Your task to perform on an android device: Search for Italian restaurants on Maps Image 0: 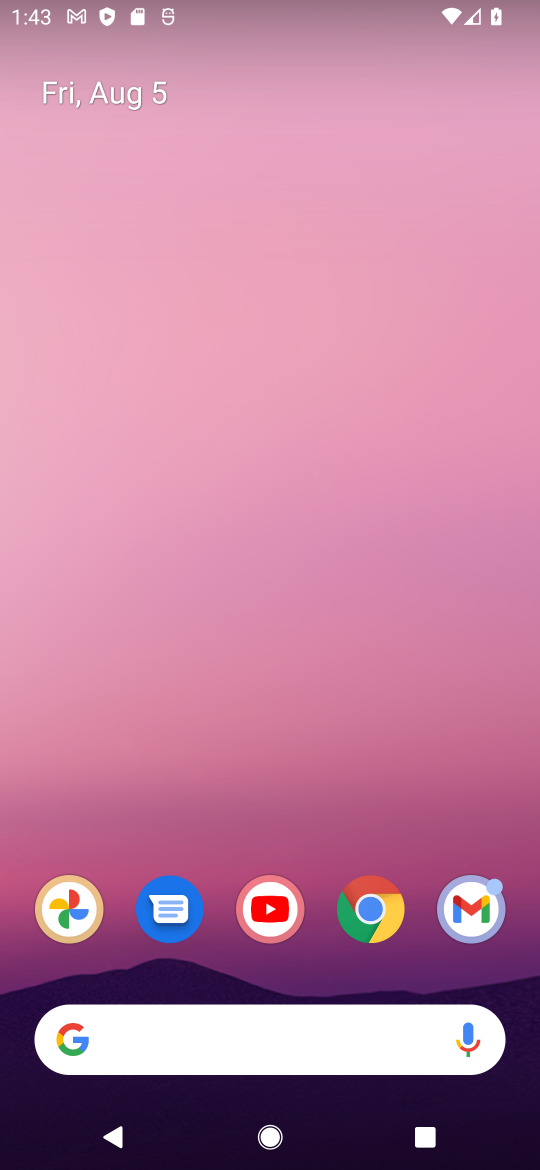
Step 0: drag from (313, 990) to (312, 256)
Your task to perform on an android device: Search for Italian restaurants on Maps Image 1: 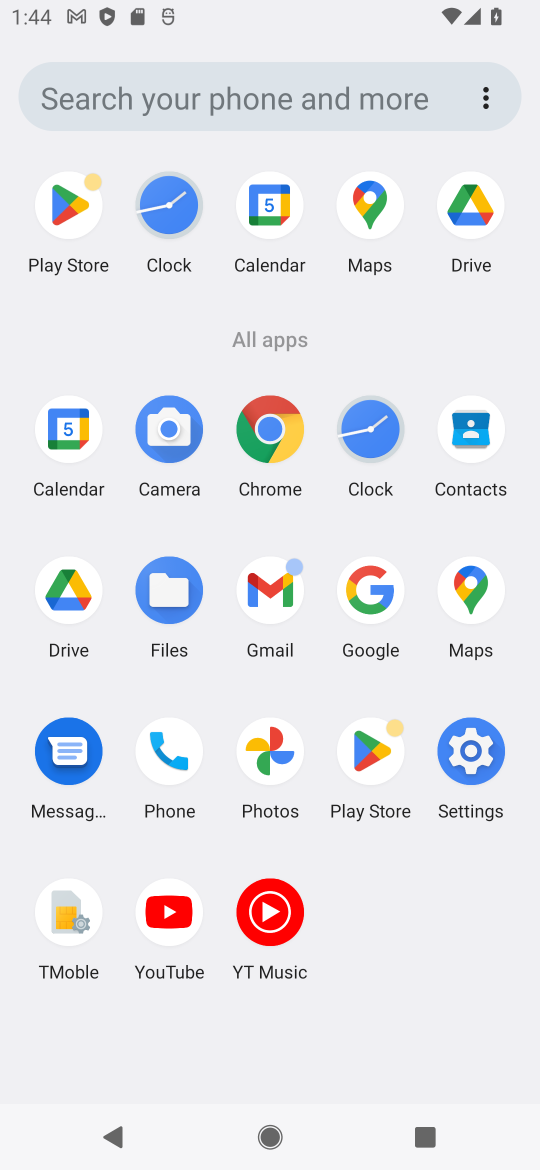
Step 1: click (84, 221)
Your task to perform on an android device: Search for Italian restaurants on Maps Image 2: 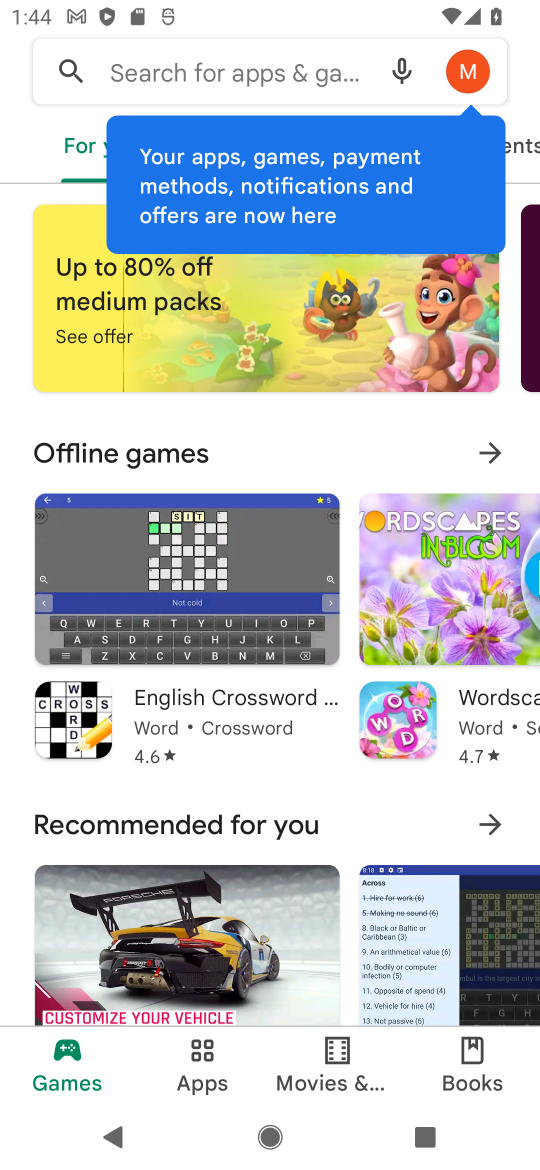
Step 2: press home button
Your task to perform on an android device: Search for Italian restaurants on Maps Image 3: 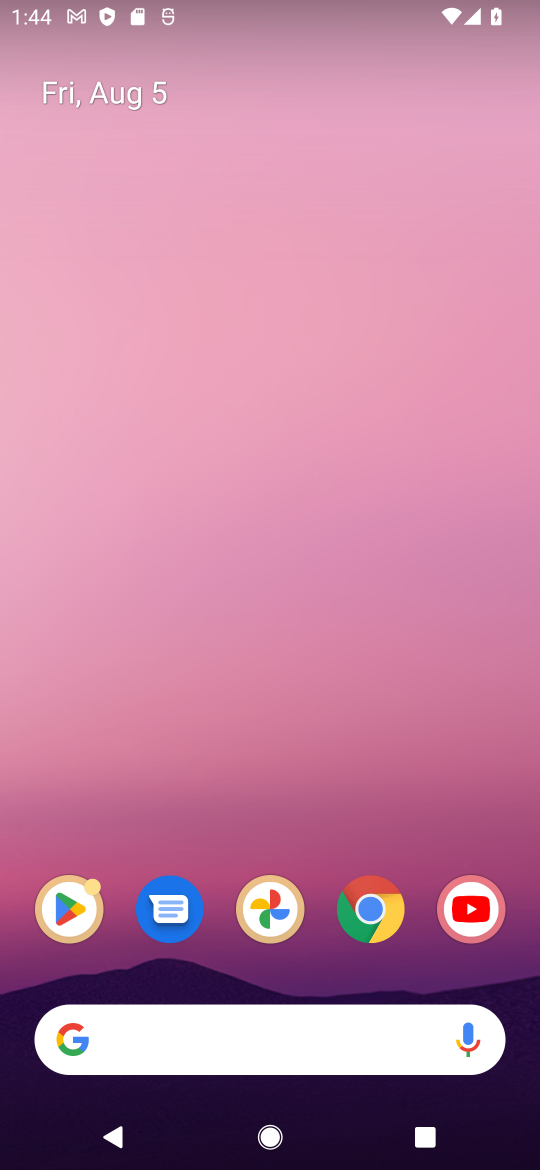
Step 3: drag from (303, 985) to (223, 137)
Your task to perform on an android device: Search for Italian restaurants on Maps Image 4: 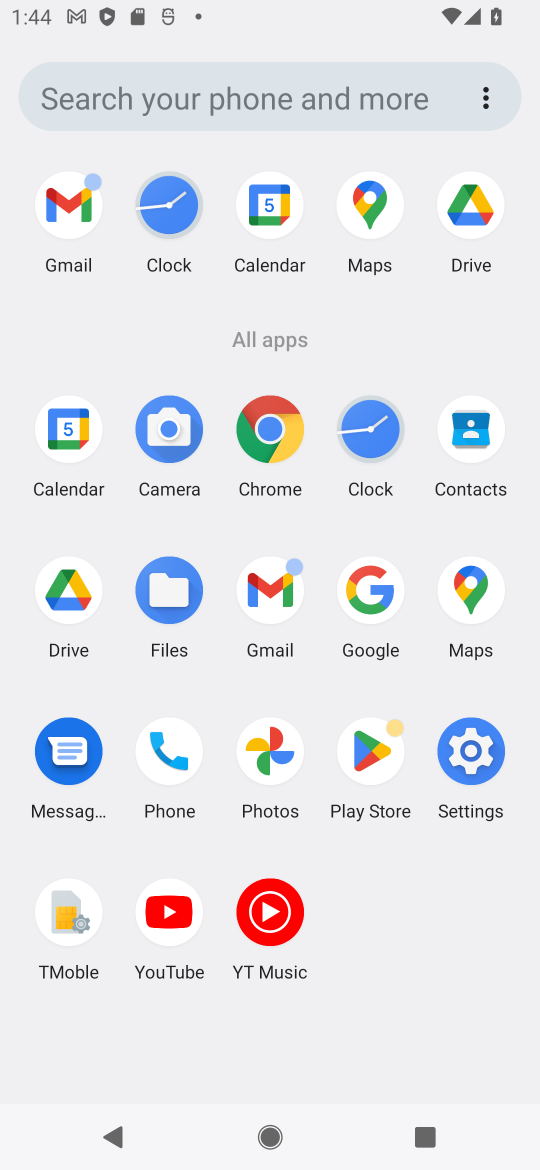
Step 4: click (495, 613)
Your task to perform on an android device: Search for Italian restaurants on Maps Image 5: 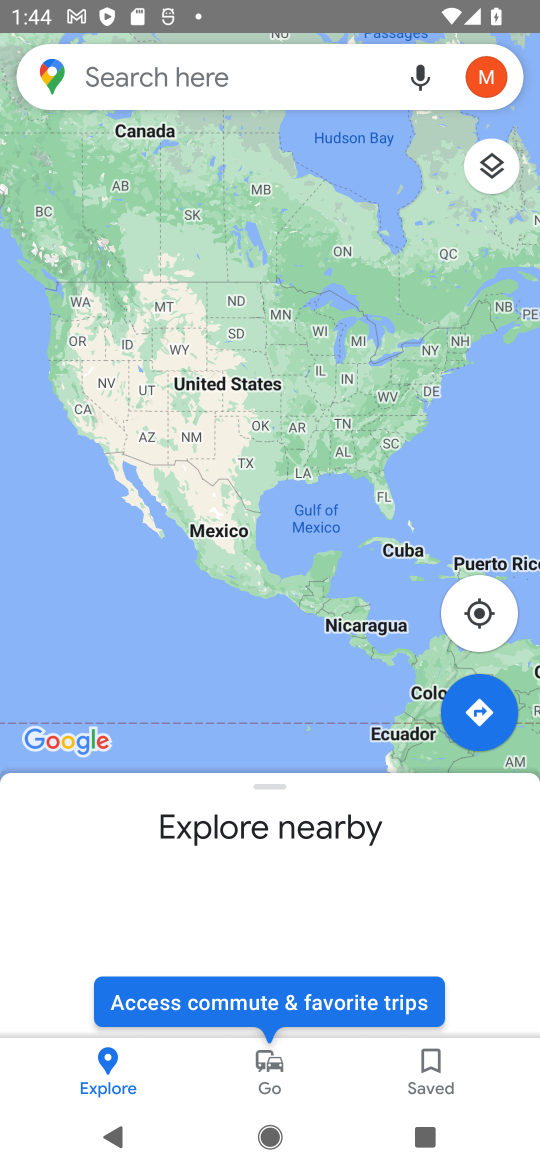
Step 5: click (246, 71)
Your task to perform on an android device: Search for Italian restaurants on Maps Image 6: 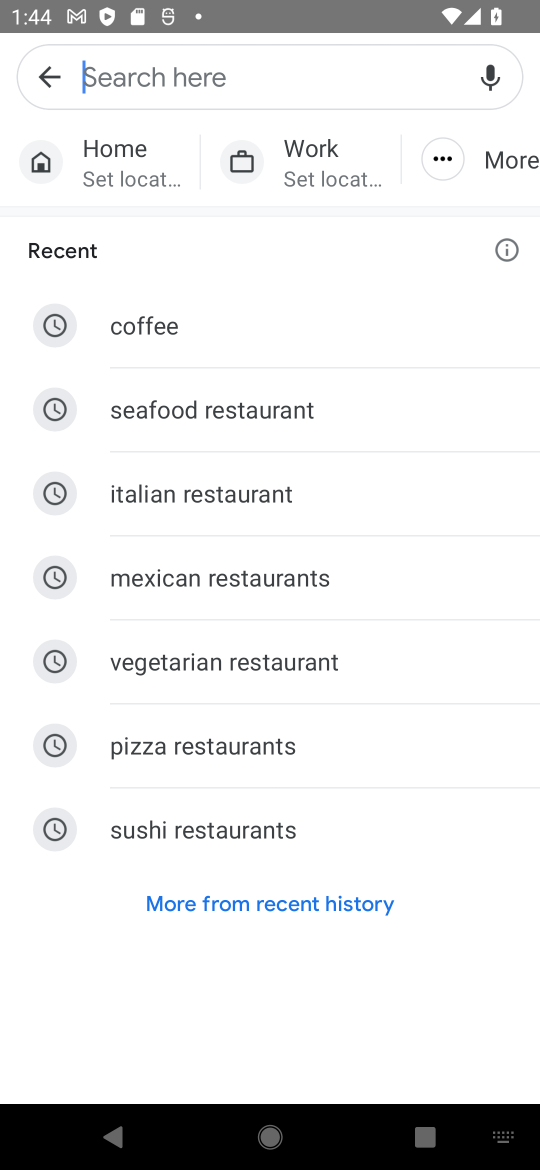
Step 6: click (235, 486)
Your task to perform on an android device: Search for Italian restaurants on Maps Image 7: 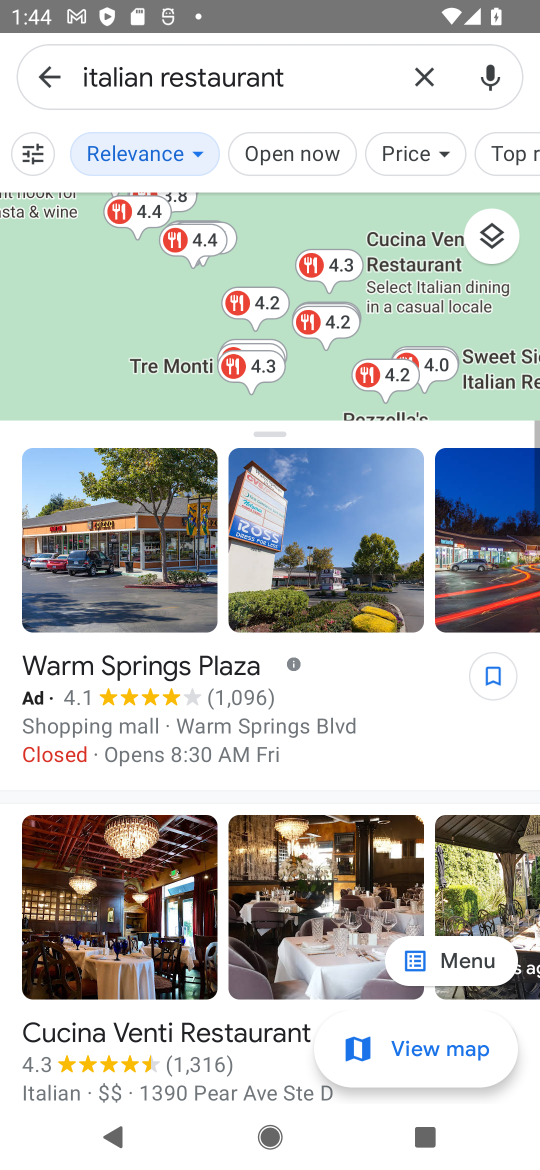
Step 7: task complete